Your task to perform on an android device: Open internet settings Image 0: 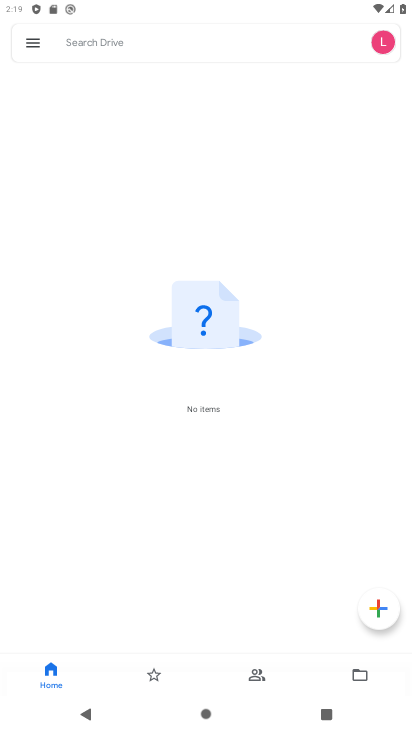
Step 0: press home button
Your task to perform on an android device: Open internet settings Image 1: 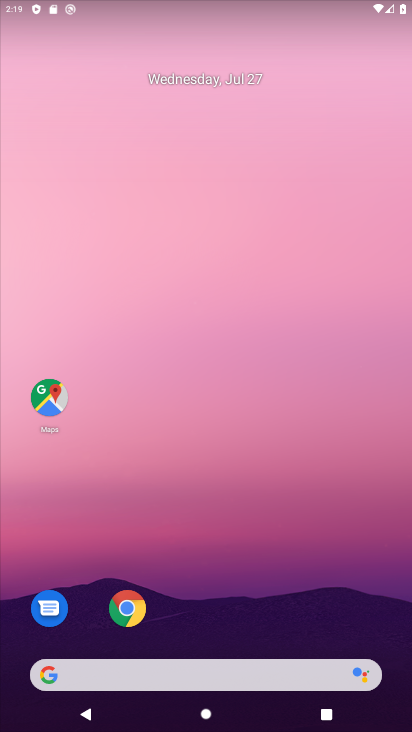
Step 1: drag from (240, 611) to (237, 275)
Your task to perform on an android device: Open internet settings Image 2: 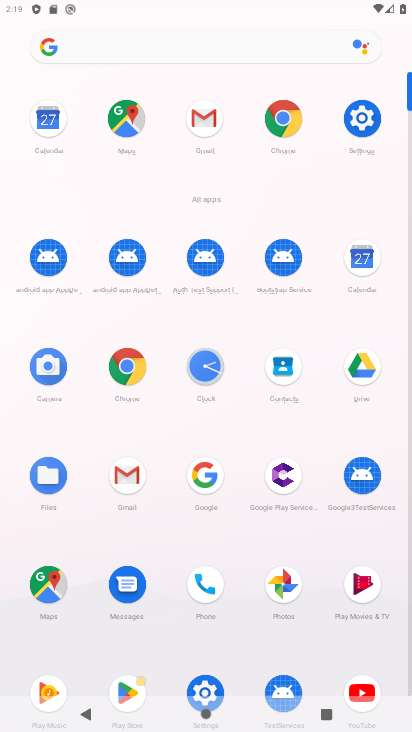
Step 2: click (362, 129)
Your task to perform on an android device: Open internet settings Image 3: 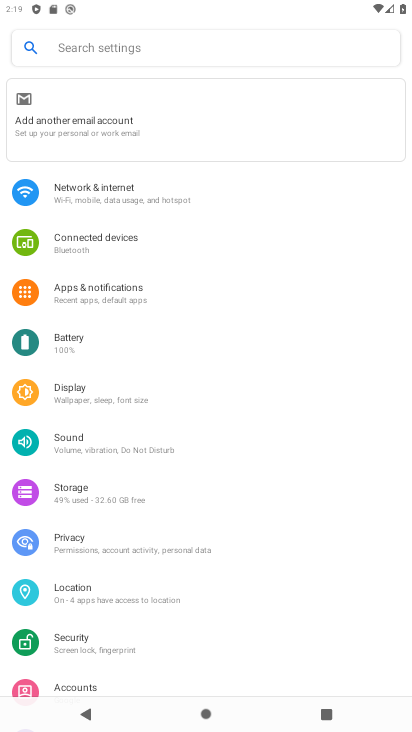
Step 3: click (106, 191)
Your task to perform on an android device: Open internet settings Image 4: 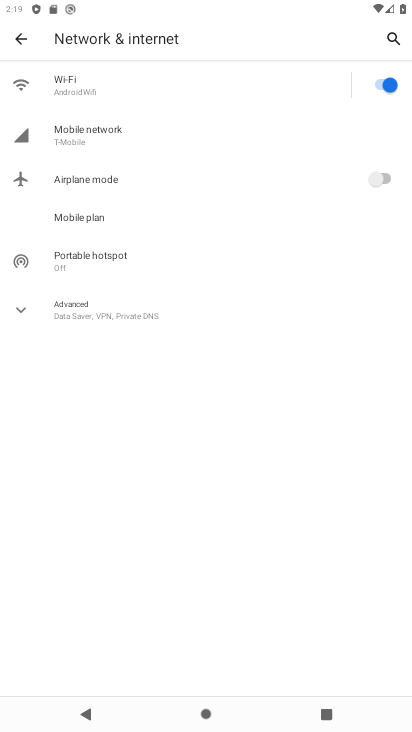
Step 4: task complete